Your task to perform on an android device: Open Chrome and go to the settings page Image 0: 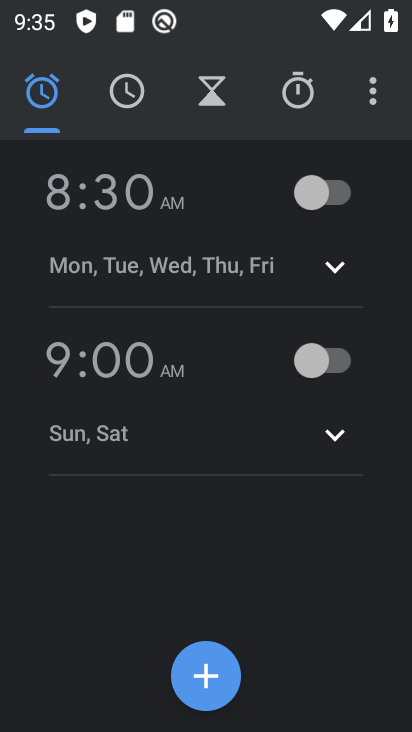
Step 0: press home button
Your task to perform on an android device: Open Chrome and go to the settings page Image 1: 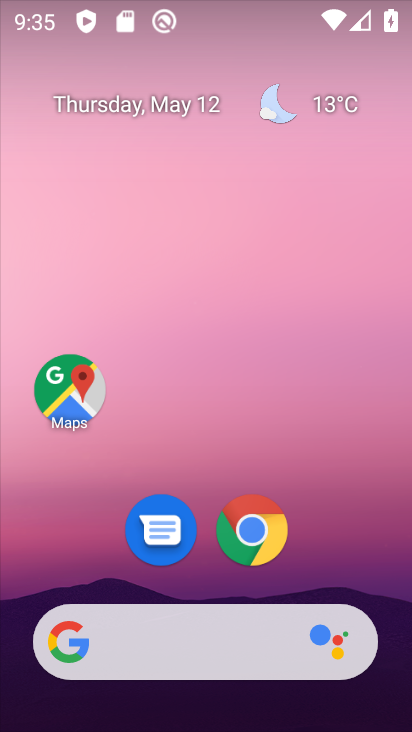
Step 1: click (258, 536)
Your task to perform on an android device: Open Chrome and go to the settings page Image 2: 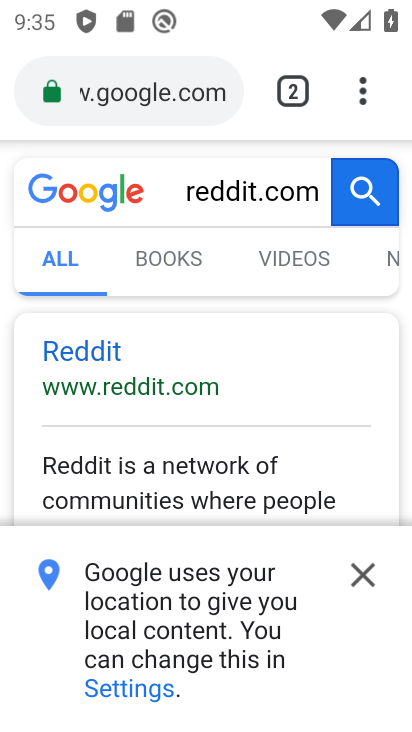
Step 2: click (357, 99)
Your task to perform on an android device: Open Chrome and go to the settings page Image 3: 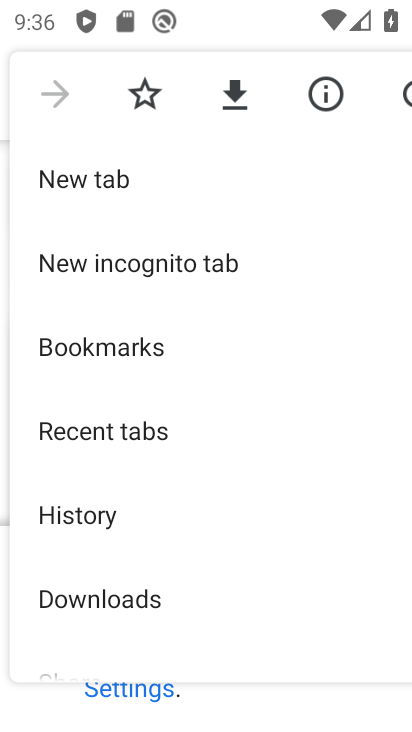
Step 3: drag from (215, 550) to (251, 182)
Your task to perform on an android device: Open Chrome and go to the settings page Image 4: 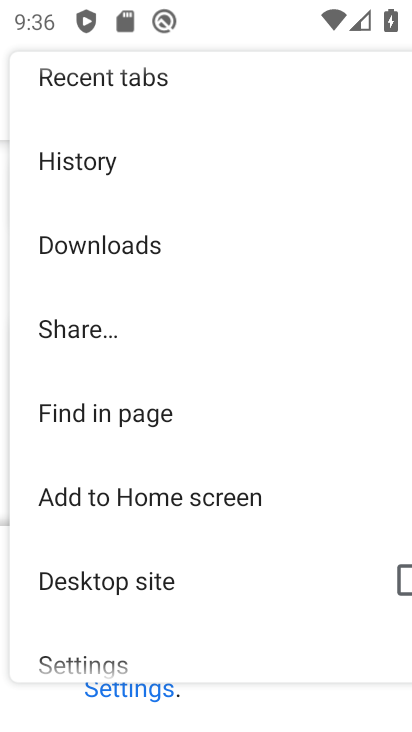
Step 4: drag from (208, 577) to (261, 295)
Your task to perform on an android device: Open Chrome and go to the settings page Image 5: 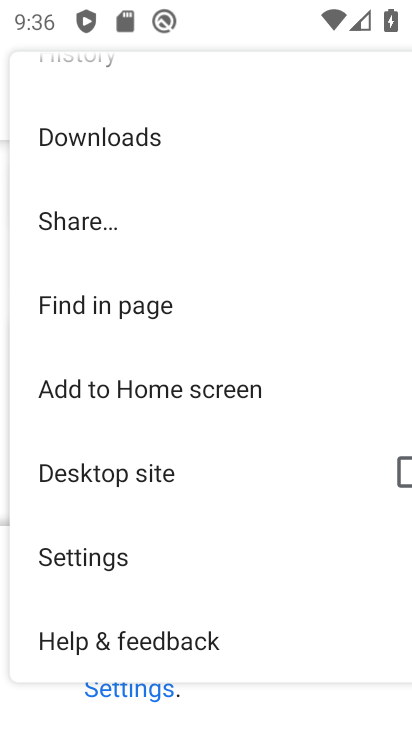
Step 5: click (115, 566)
Your task to perform on an android device: Open Chrome and go to the settings page Image 6: 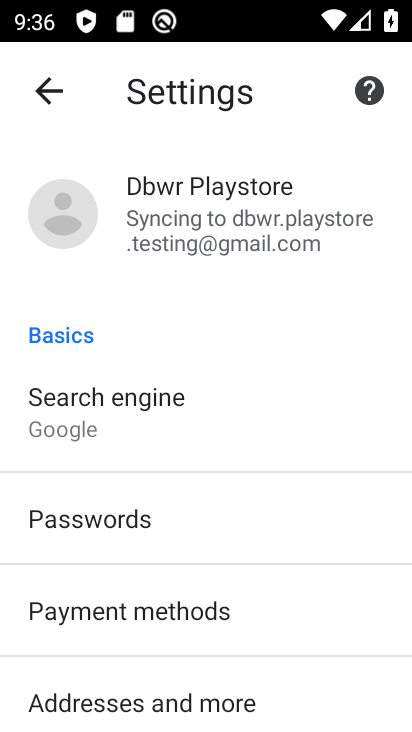
Step 6: task complete